Your task to perform on an android device: Open Wikipedia Image 0: 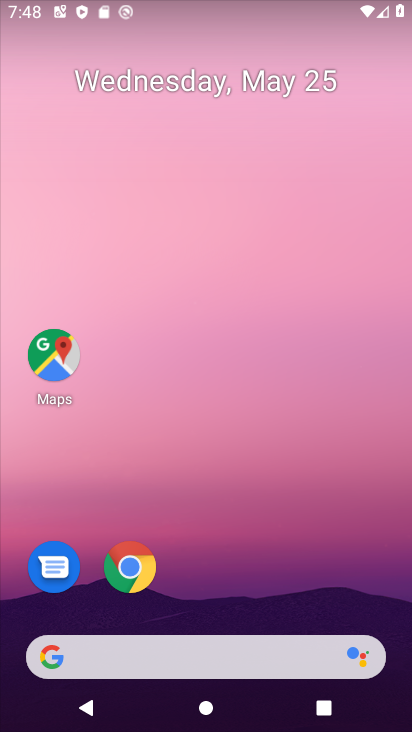
Step 0: click (143, 569)
Your task to perform on an android device: Open Wikipedia Image 1: 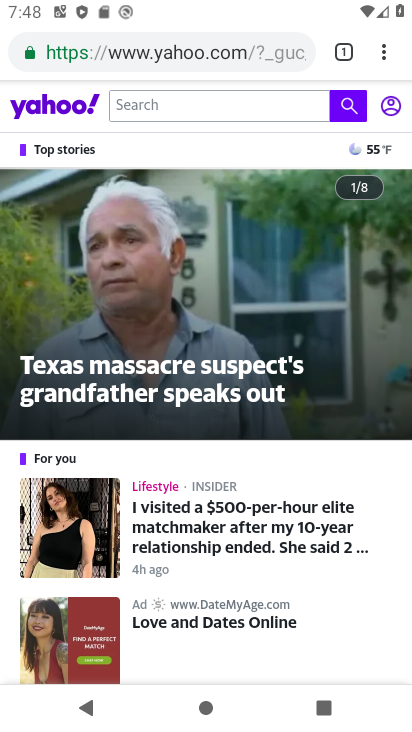
Step 1: click (196, 54)
Your task to perform on an android device: Open Wikipedia Image 2: 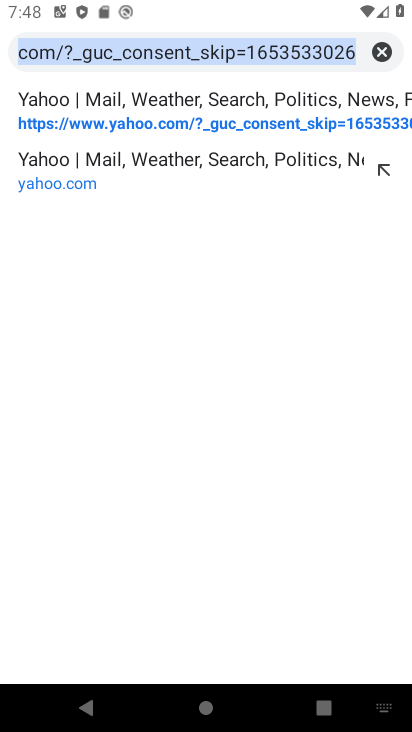
Step 2: type "wikipedia"
Your task to perform on an android device: Open Wikipedia Image 3: 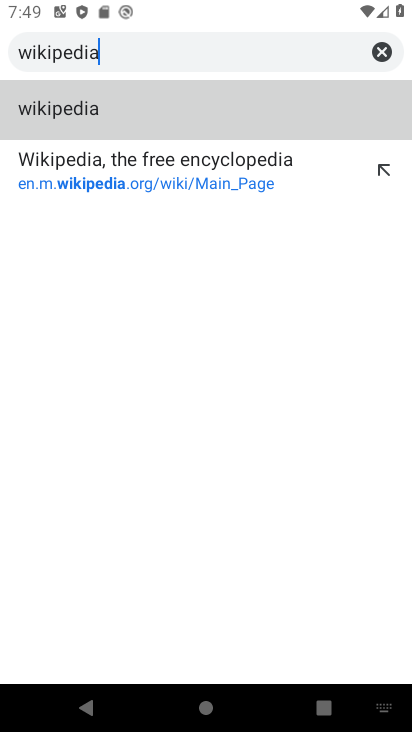
Step 3: click (175, 154)
Your task to perform on an android device: Open Wikipedia Image 4: 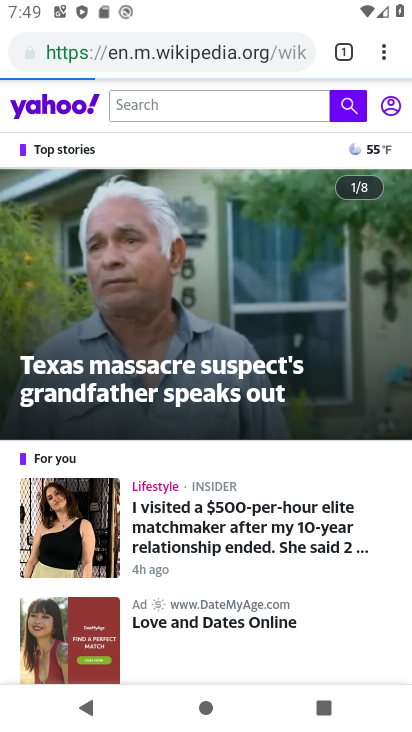
Step 4: task complete